Your task to perform on an android device: open chrome and create a bookmark for the current page Image 0: 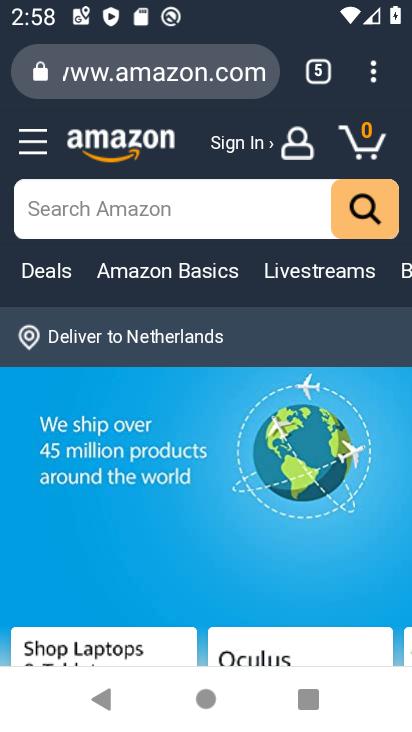
Step 0: press home button
Your task to perform on an android device: open chrome and create a bookmark for the current page Image 1: 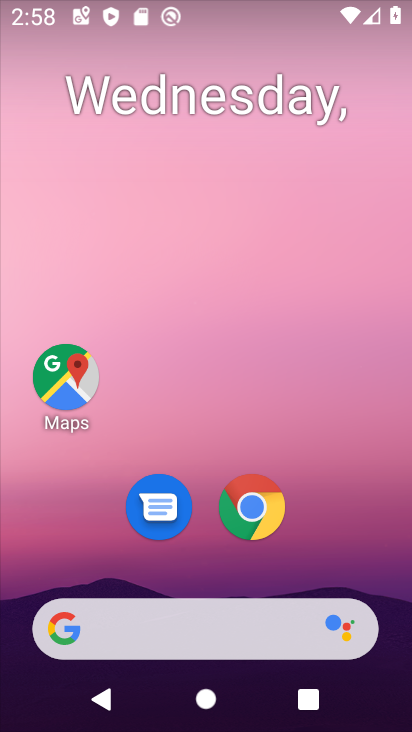
Step 1: click (246, 512)
Your task to perform on an android device: open chrome and create a bookmark for the current page Image 2: 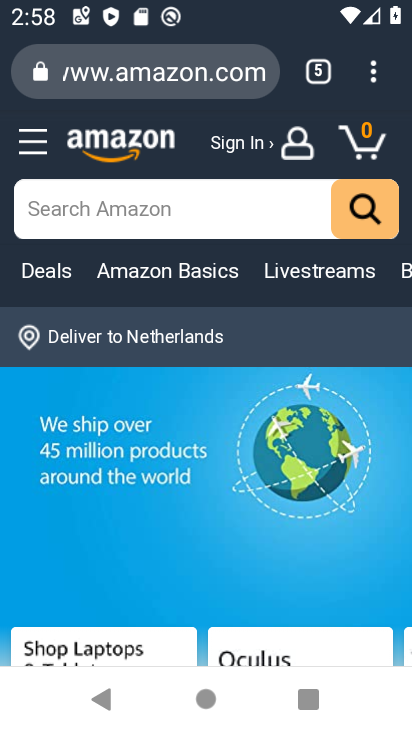
Step 2: click (368, 63)
Your task to perform on an android device: open chrome and create a bookmark for the current page Image 3: 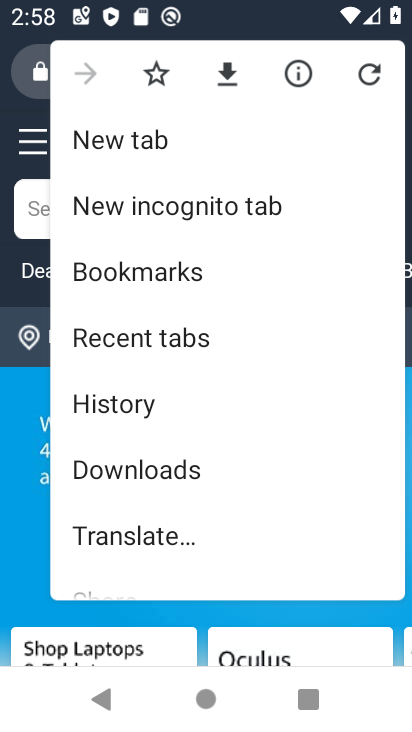
Step 3: click (135, 247)
Your task to perform on an android device: open chrome and create a bookmark for the current page Image 4: 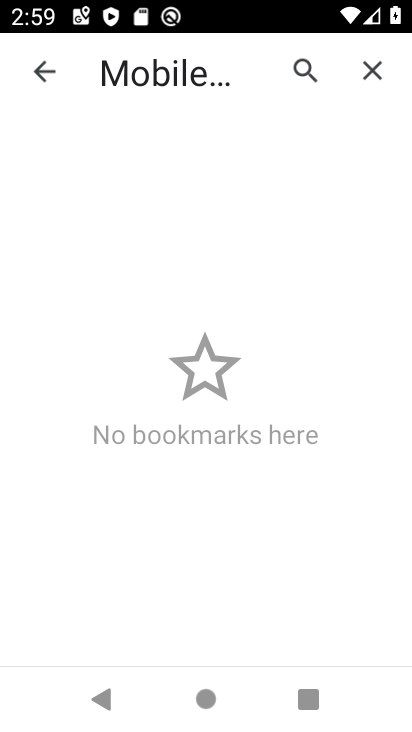
Step 4: click (297, 72)
Your task to perform on an android device: open chrome and create a bookmark for the current page Image 5: 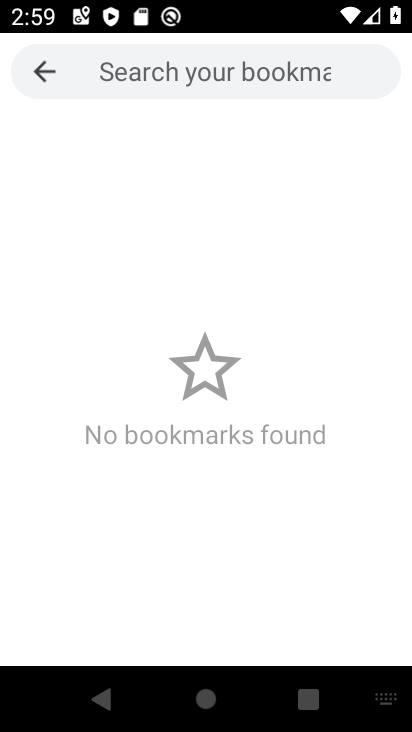
Step 5: task complete